Your task to perform on an android device: Open the phone app and click the voicemail tab. Image 0: 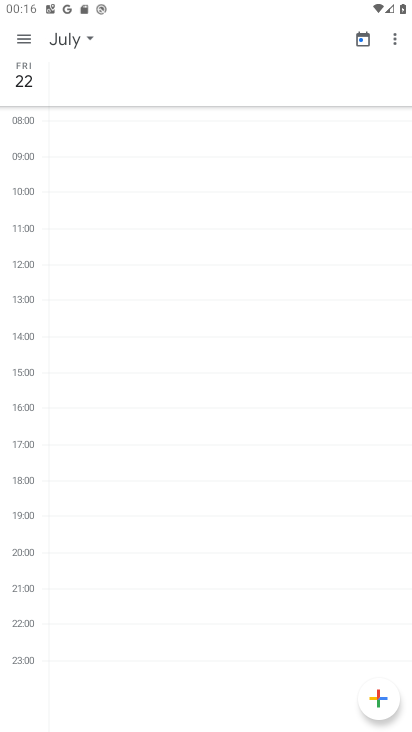
Step 0: press home button
Your task to perform on an android device: Open the phone app and click the voicemail tab. Image 1: 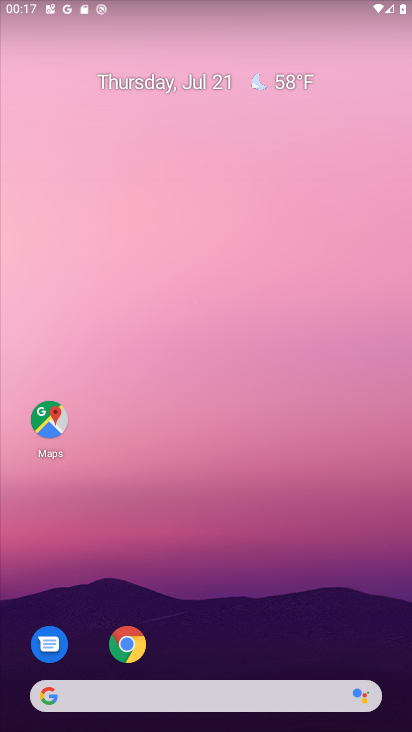
Step 1: drag from (161, 688) to (272, 33)
Your task to perform on an android device: Open the phone app and click the voicemail tab. Image 2: 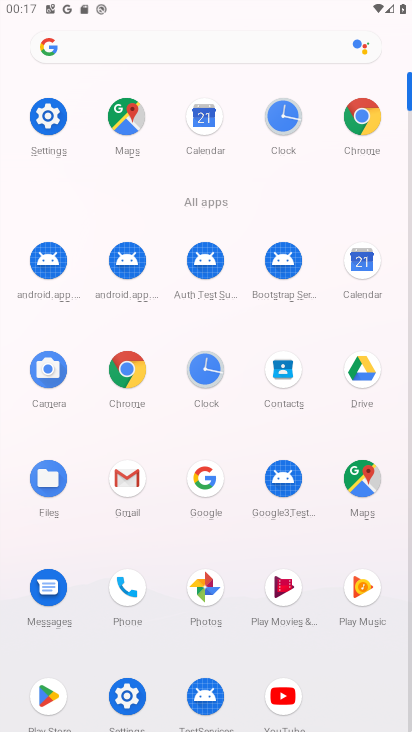
Step 2: click (126, 594)
Your task to perform on an android device: Open the phone app and click the voicemail tab. Image 3: 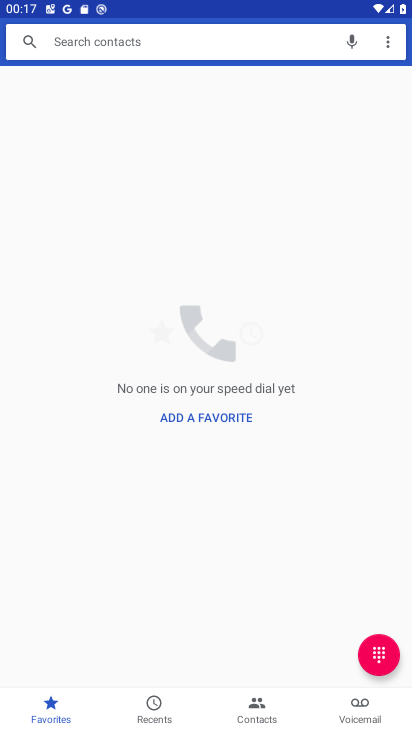
Step 3: click (361, 703)
Your task to perform on an android device: Open the phone app and click the voicemail tab. Image 4: 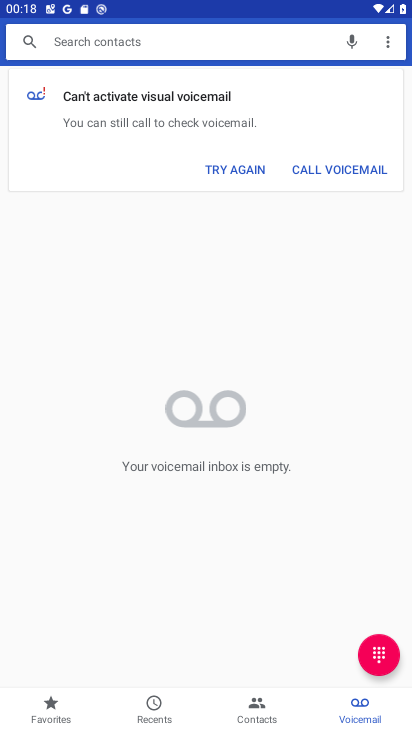
Step 4: task complete